Your task to perform on an android device: Open privacy settings Image 0: 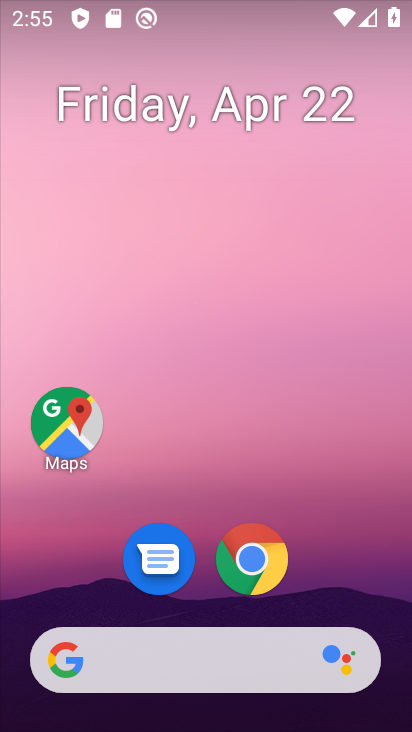
Step 0: drag from (265, 728) to (263, 79)
Your task to perform on an android device: Open privacy settings Image 1: 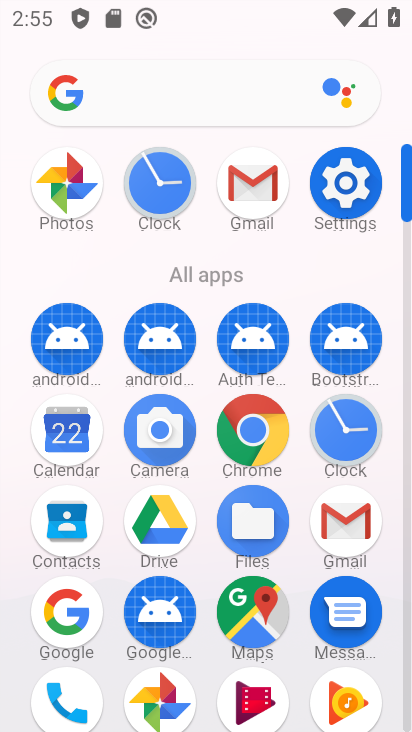
Step 1: click (351, 185)
Your task to perform on an android device: Open privacy settings Image 2: 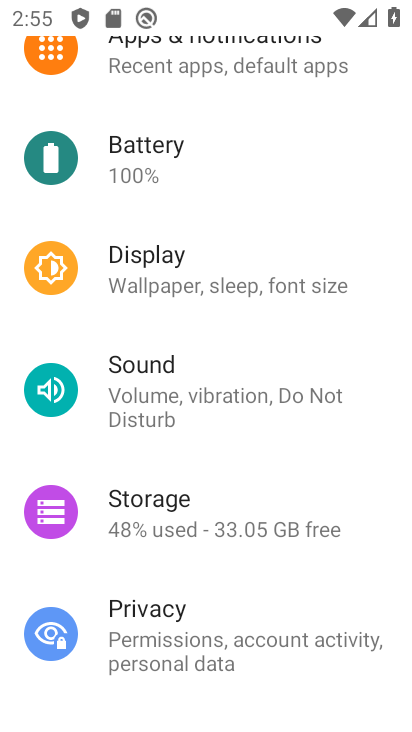
Step 2: click (265, 635)
Your task to perform on an android device: Open privacy settings Image 3: 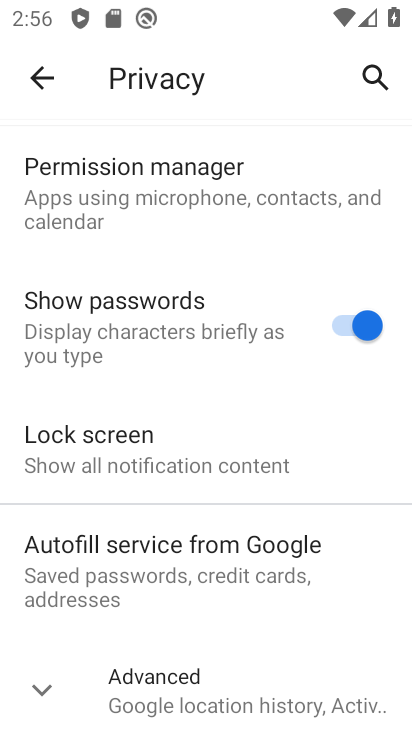
Step 3: task complete